Your task to perform on an android device: Go to calendar. Show me events next week Image 0: 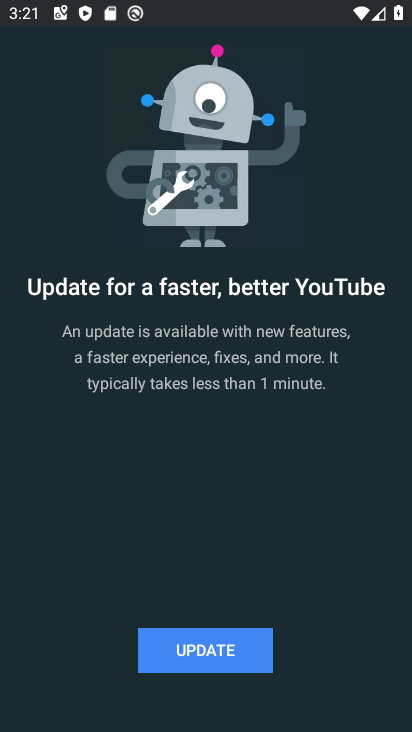
Step 0: press home button
Your task to perform on an android device: Go to calendar. Show me events next week Image 1: 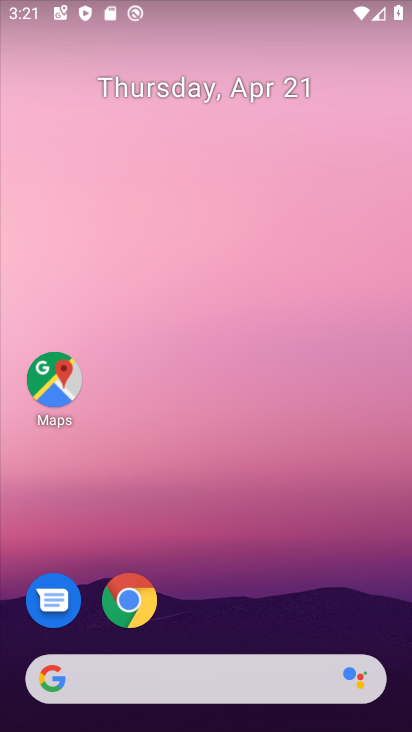
Step 1: drag from (330, 580) to (349, 170)
Your task to perform on an android device: Go to calendar. Show me events next week Image 2: 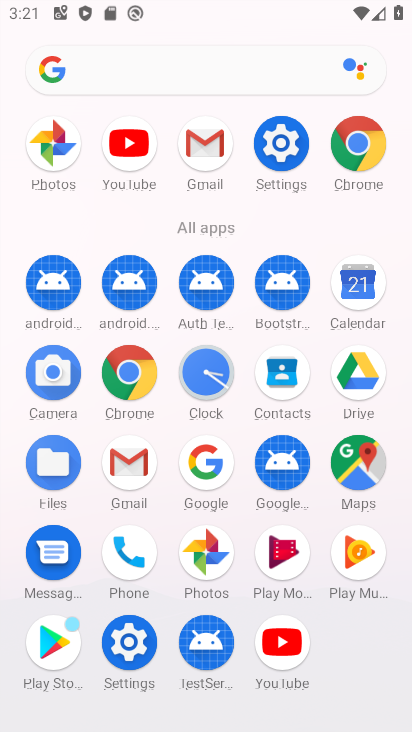
Step 2: click (360, 295)
Your task to perform on an android device: Go to calendar. Show me events next week Image 3: 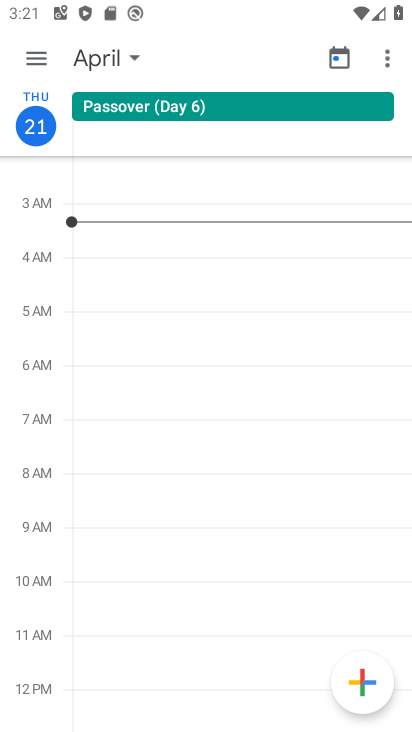
Step 3: click (95, 83)
Your task to perform on an android device: Go to calendar. Show me events next week Image 4: 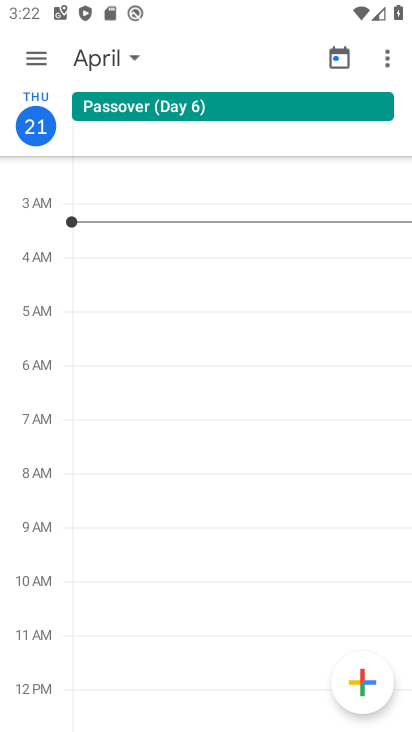
Step 4: click (112, 57)
Your task to perform on an android device: Go to calendar. Show me events next week Image 5: 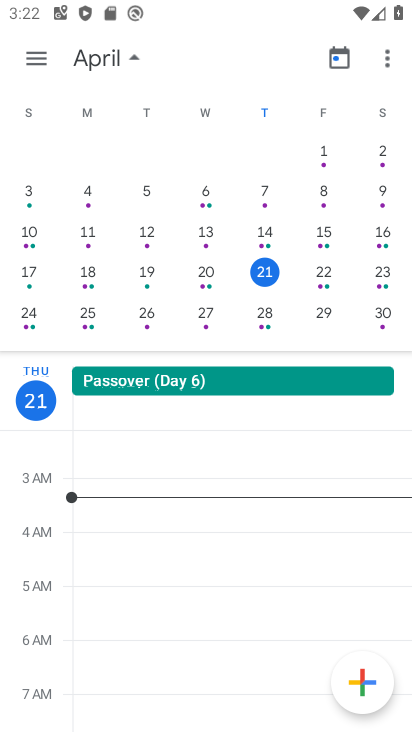
Step 5: click (47, 326)
Your task to perform on an android device: Go to calendar. Show me events next week Image 6: 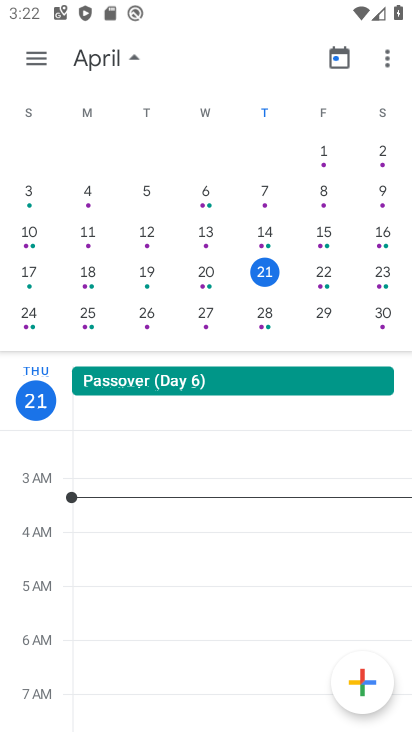
Step 6: click (27, 311)
Your task to perform on an android device: Go to calendar. Show me events next week Image 7: 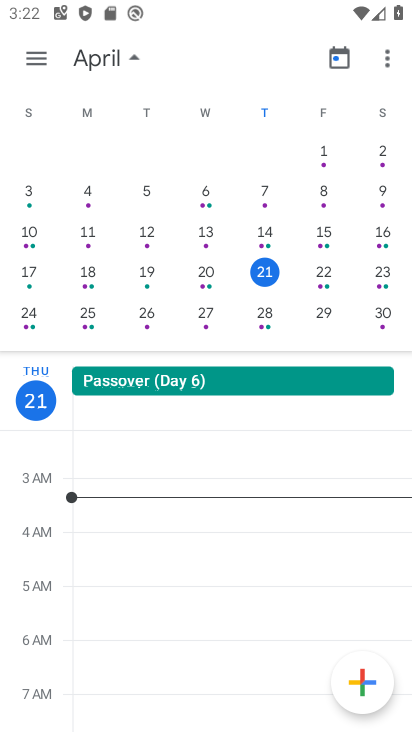
Step 7: click (27, 309)
Your task to perform on an android device: Go to calendar. Show me events next week Image 8: 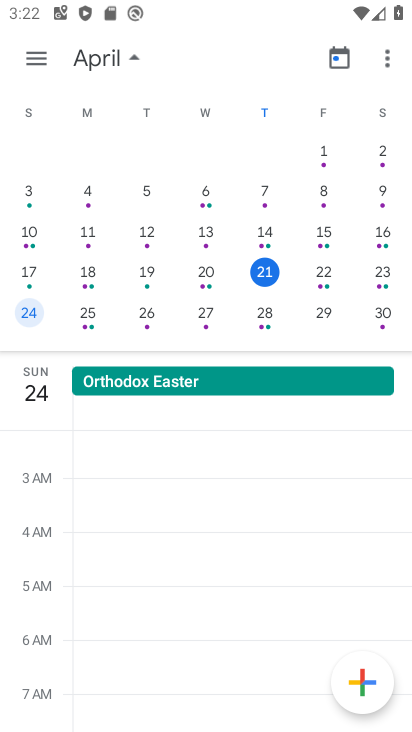
Step 8: click (91, 317)
Your task to perform on an android device: Go to calendar. Show me events next week Image 9: 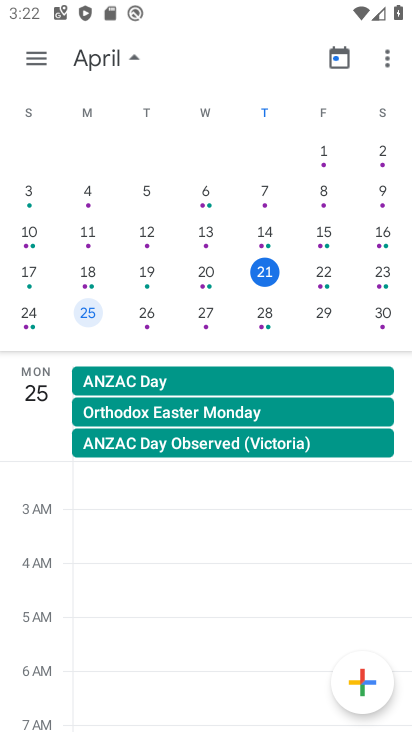
Step 9: click (146, 324)
Your task to perform on an android device: Go to calendar. Show me events next week Image 10: 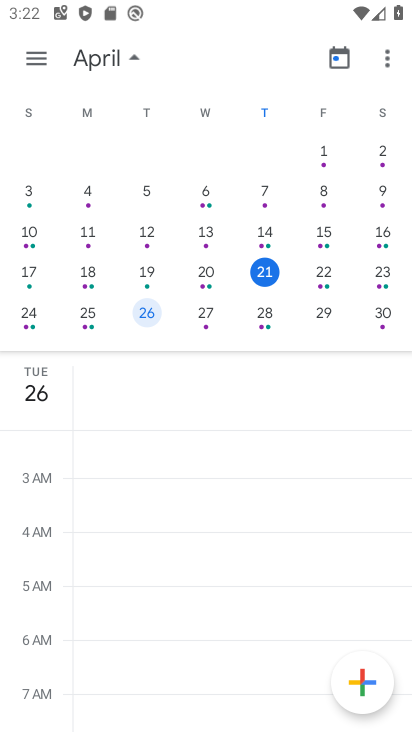
Step 10: click (146, 316)
Your task to perform on an android device: Go to calendar. Show me events next week Image 11: 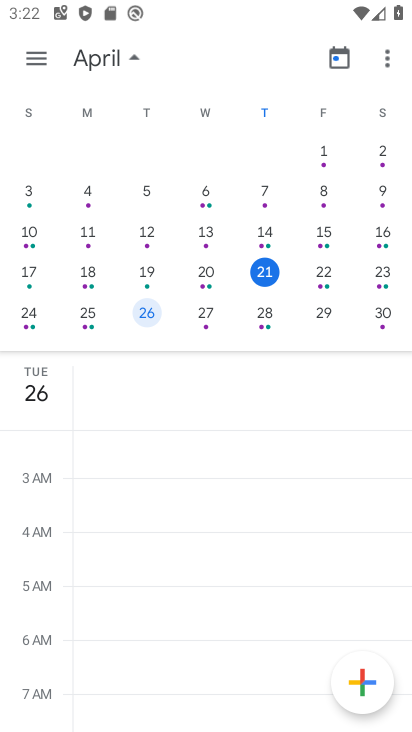
Step 11: click (209, 306)
Your task to perform on an android device: Go to calendar. Show me events next week Image 12: 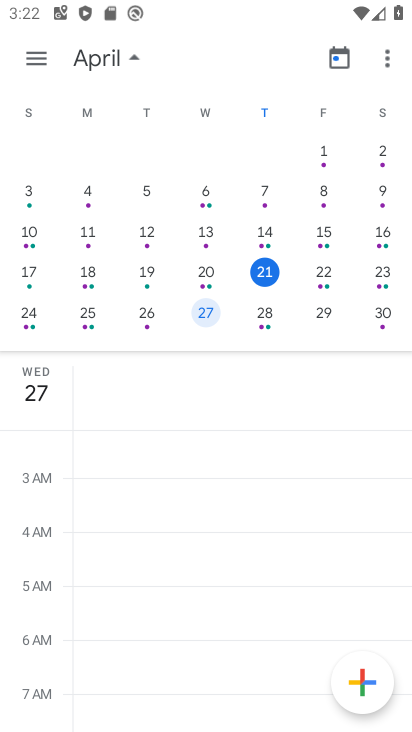
Step 12: click (269, 313)
Your task to perform on an android device: Go to calendar. Show me events next week Image 13: 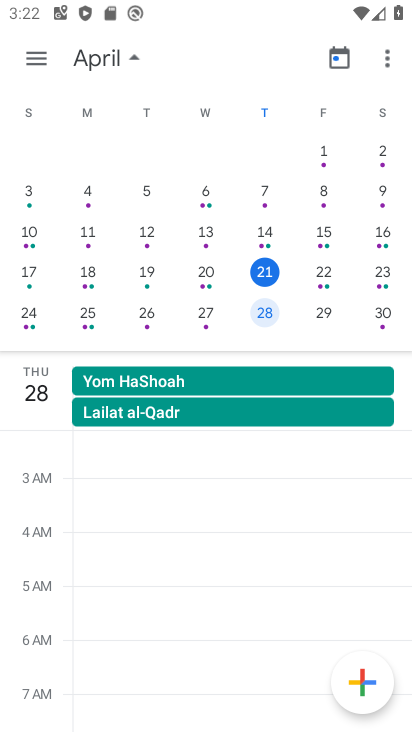
Step 13: click (315, 310)
Your task to perform on an android device: Go to calendar. Show me events next week Image 14: 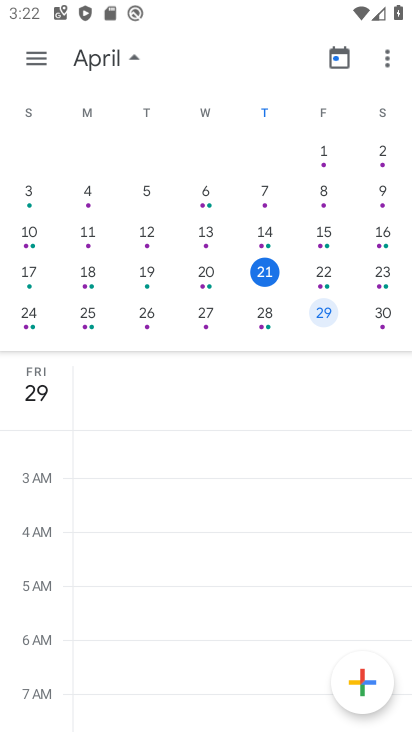
Step 14: click (390, 322)
Your task to perform on an android device: Go to calendar. Show me events next week Image 15: 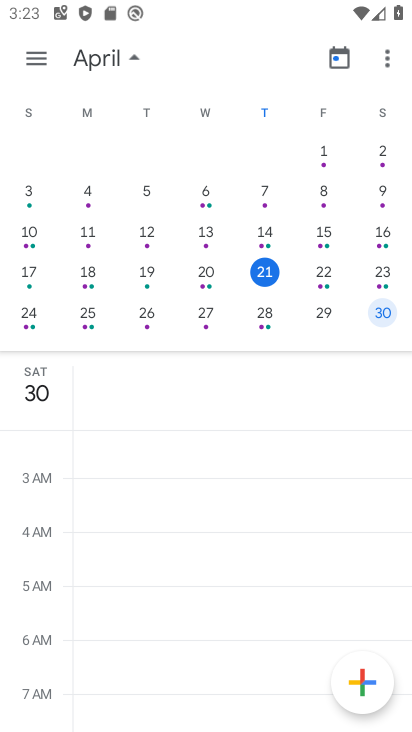
Step 15: click (33, 68)
Your task to perform on an android device: Go to calendar. Show me events next week Image 16: 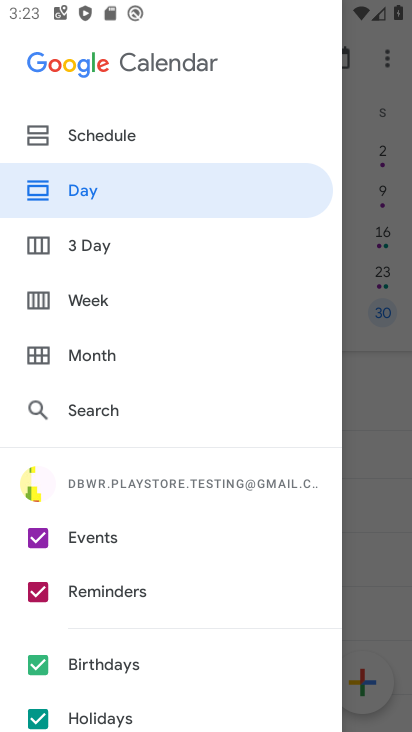
Step 16: task complete